Your task to perform on an android device: Check the news Image 0: 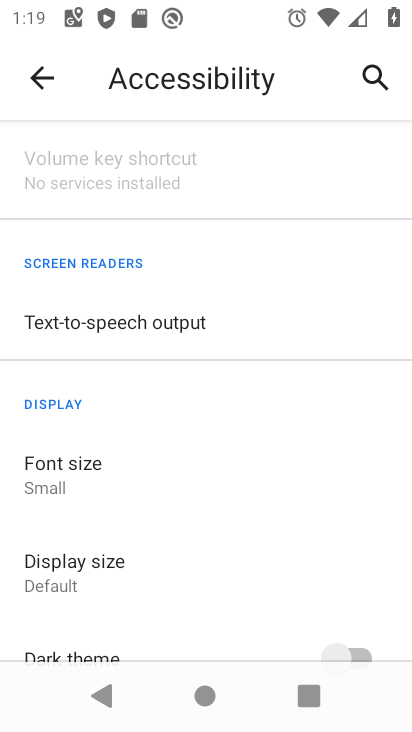
Step 0: press home button
Your task to perform on an android device: Check the news Image 1: 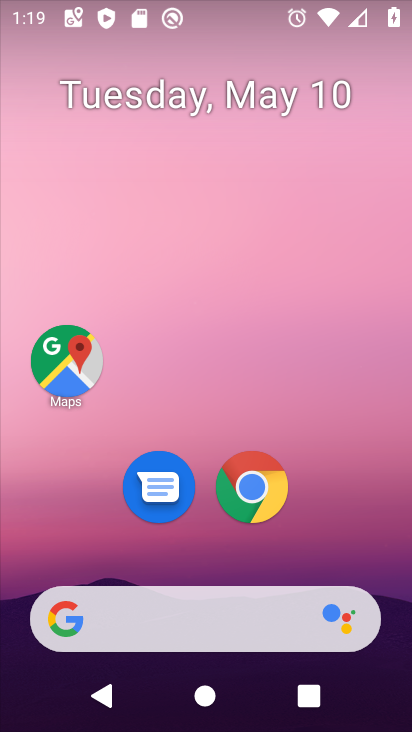
Step 1: click (254, 486)
Your task to perform on an android device: Check the news Image 2: 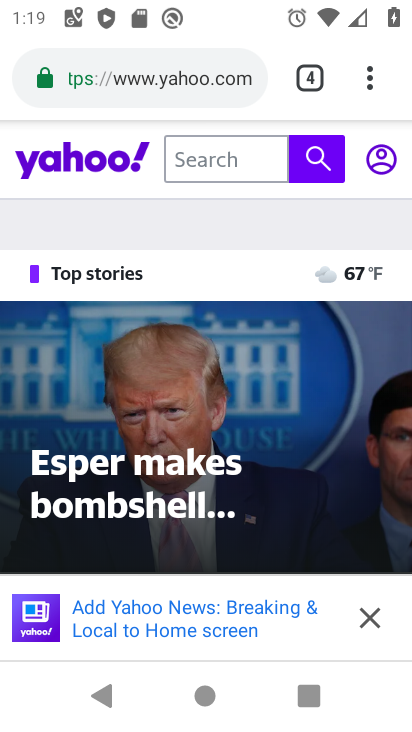
Step 2: click (291, 82)
Your task to perform on an android device: Check the news Image 3: 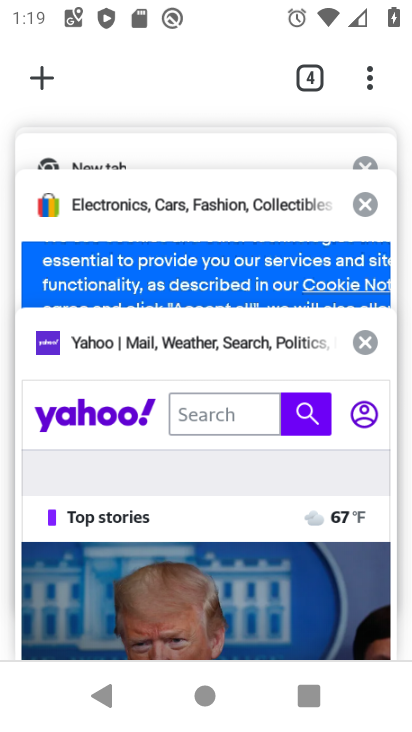
Step 3: click (39, 84)
Your task to perform on an android device: Check the news Image 4: 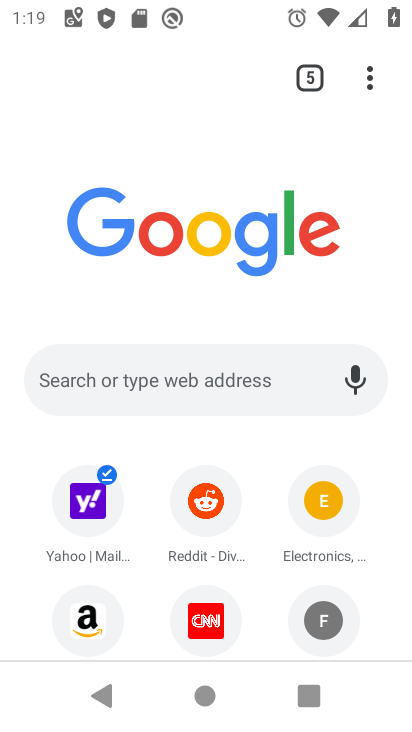
Step 4: task complete